Your task to perform on an android device: What's the weather going to be this weekend? Image 0: 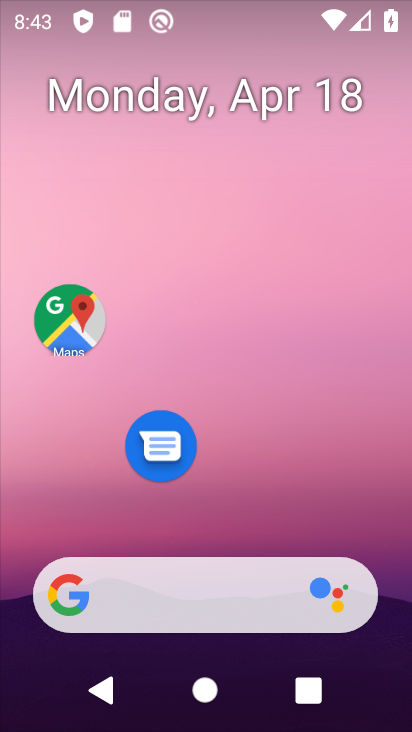
Step 0: press home button
Your task to perform on an android device: What's the weather going to be this weekend? Image 1: 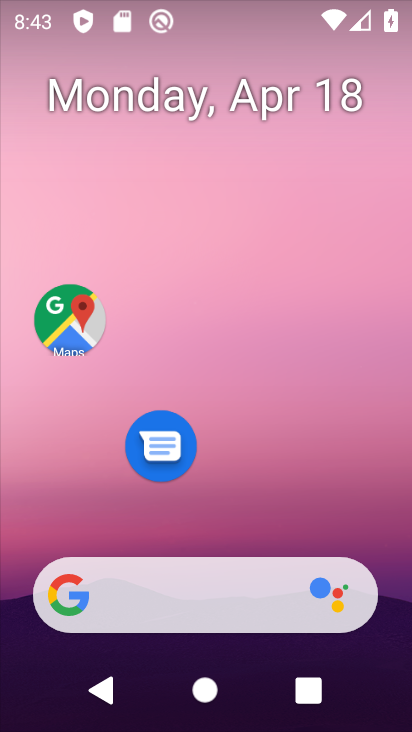
Step 1: drag from (211, 524) to (237, 34)
Your task to perform on an android device: What's the weather going to be this weekend? Image 2: 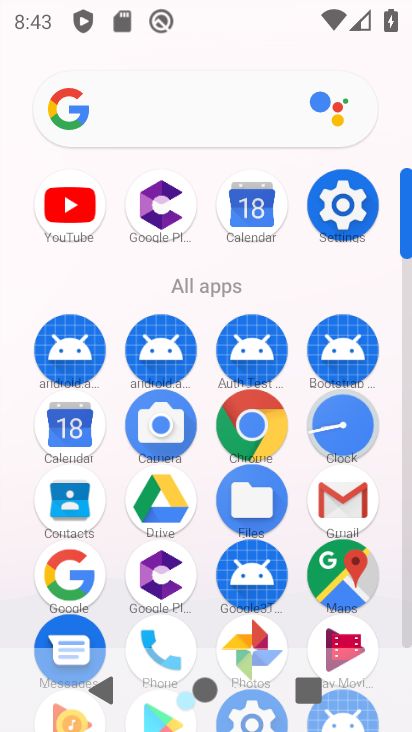
Step 2: press back button
Your task to perform on an android device: What's the weather going to be this weekend? Image 3: 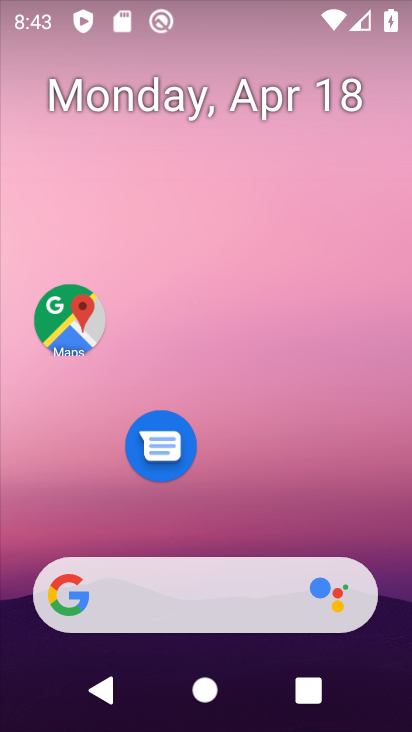
Step 3: drag from (51, 197) to (408, 264)
Your task to perform on an android device: What's the weather going to be this weekend? Image 4: 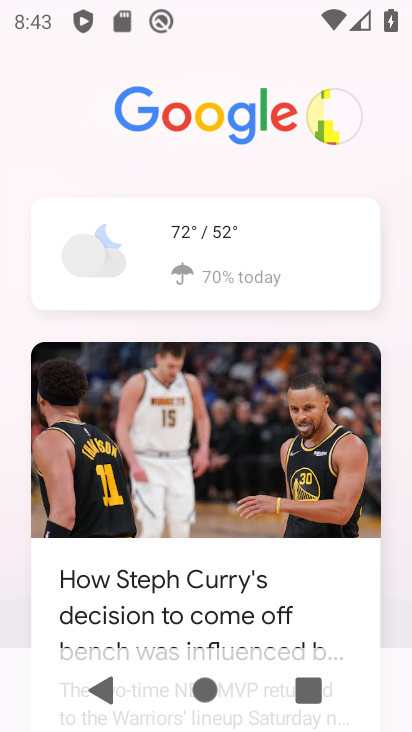
Step 4: click (240, 237)
Your task to perform on an android device: What's the weather going to be this weekend? Image 5: 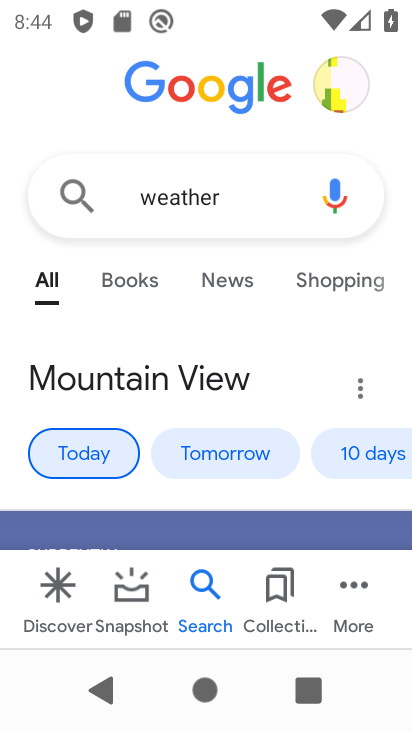
Step 5: click (364, 446)
Your task to perform on an android device: What's the weather going to be this weekend? Image 6: 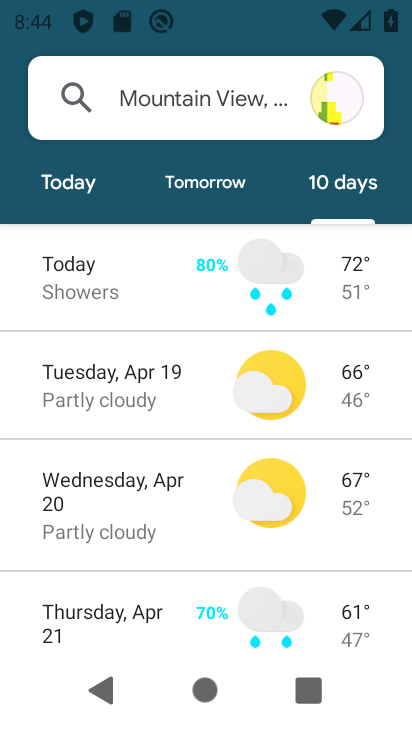
Step 6: task complete